Your task to perform on an android device: Open wifi settings Image 0: 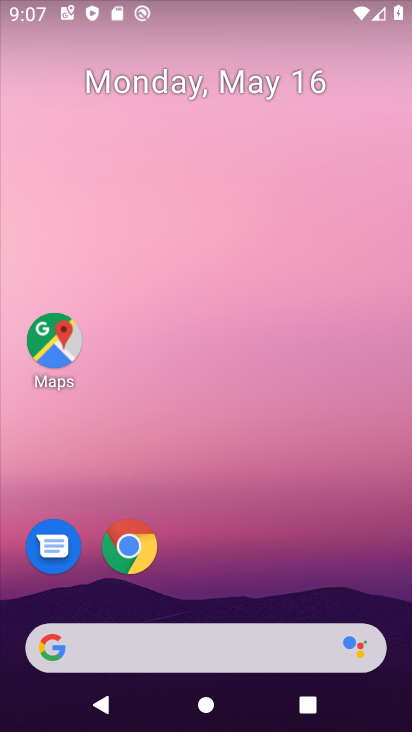
Step 0: press home button
Your task to perform on an android device: Open wifi settings Image 1: 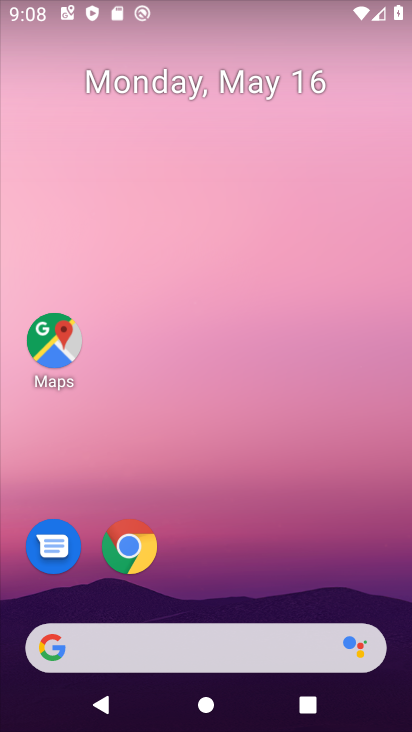
Step 1: drag from (249, 676) to (149, 273)
Your task to perform on an android device: Open wifi settings Image 2: 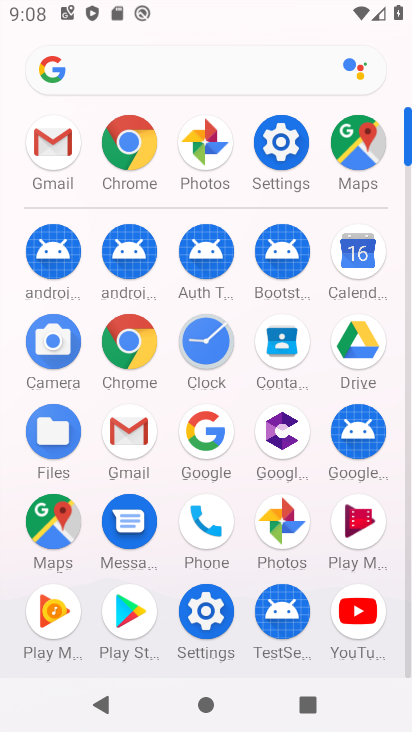
Step 2: click (296, 147)
Your task to perform on an android device: Open wifi settings Image 3: 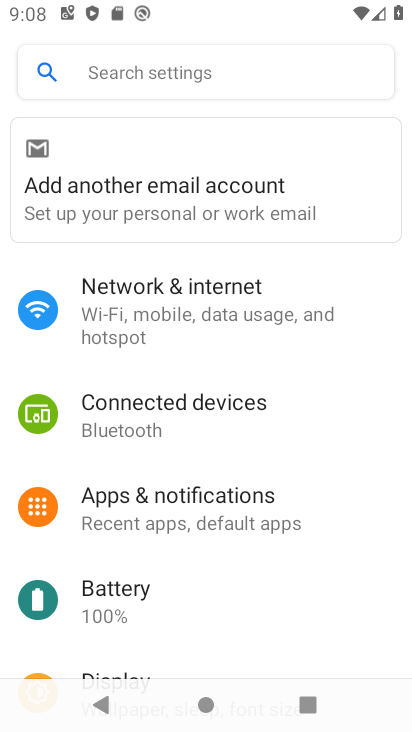
Step 3: click (239, 281)
Your task to perform on an android device: Open wifi settings Image 4: 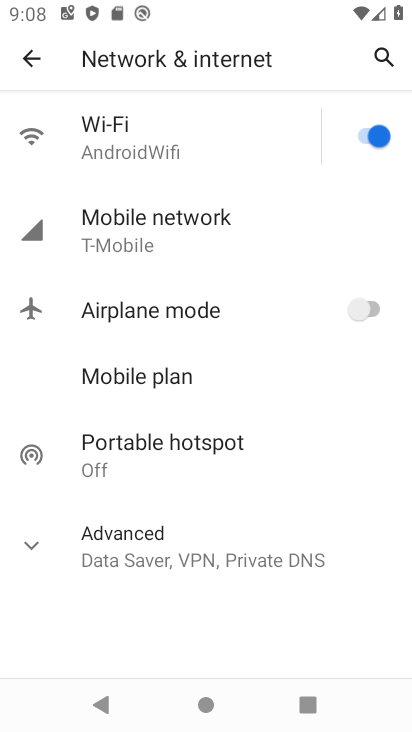
Step 4: click (209, 123)
Your task to perform on an android device: Open wifi settings Image 5: 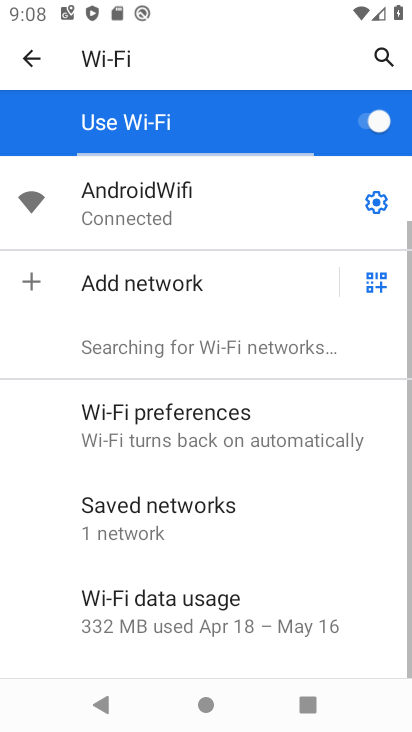
Step 5: task complete